Your task to perform on an android device: Find coffee shops on Maps Image 0: 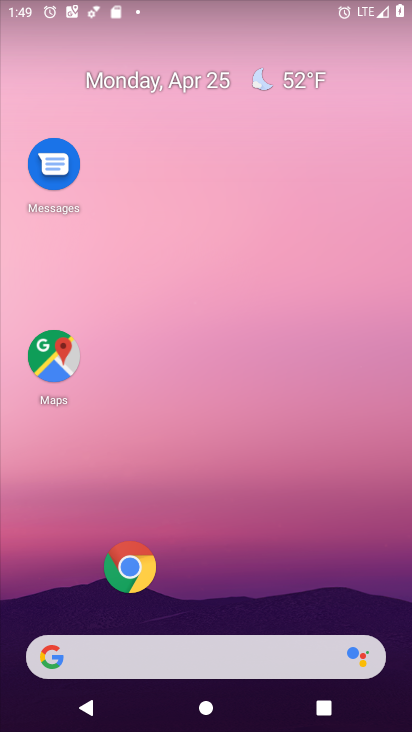
Step 0: drag from (259, 614) to (296, 141)
Your task to perform on an android device: Find coffee shops on Maps Image 1: 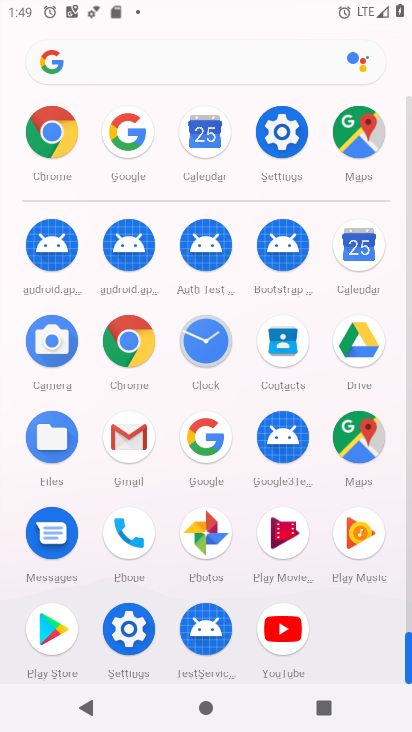
Step 1: click (357, 447)
Your task to perform on an android device: Find coffee shops on Maps Image 2: 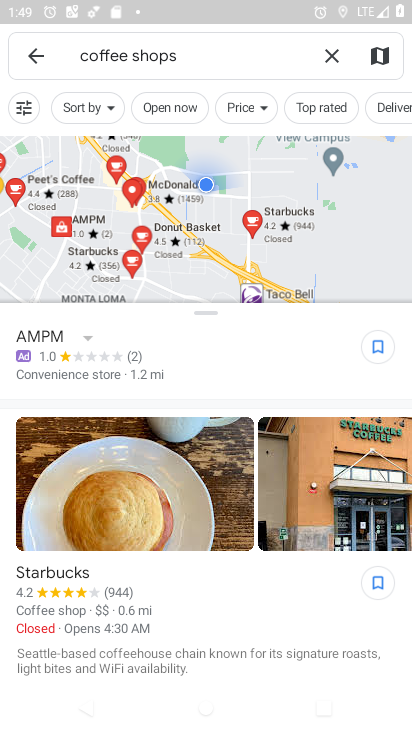
Step 2: task complete